Your task to perform on an android device: change the upload size in google photos Image 0: 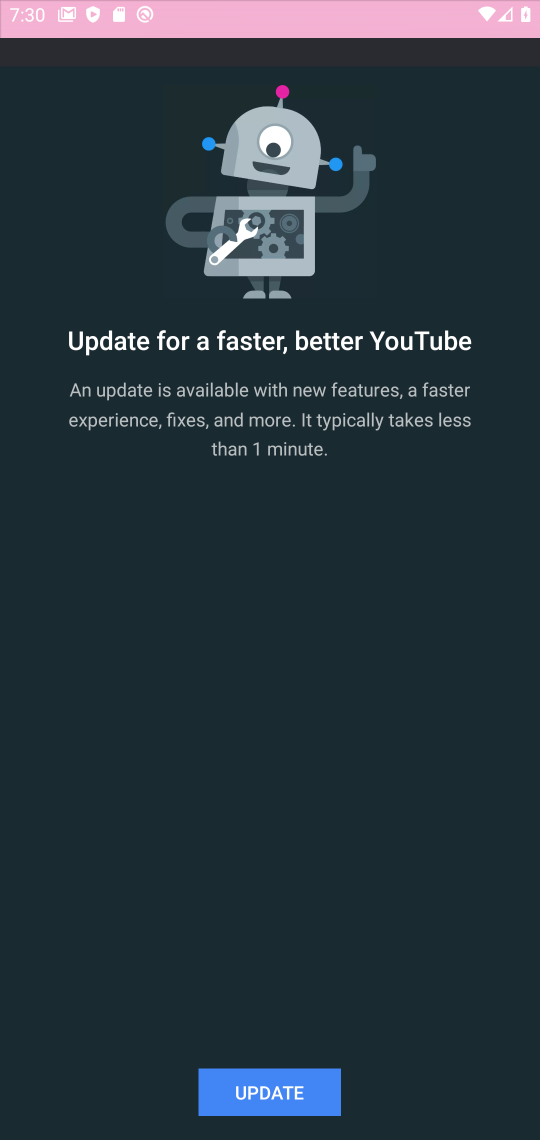
Step 0: press home button
Your task to perform on an android device: change the upload size in google photos Image 1: 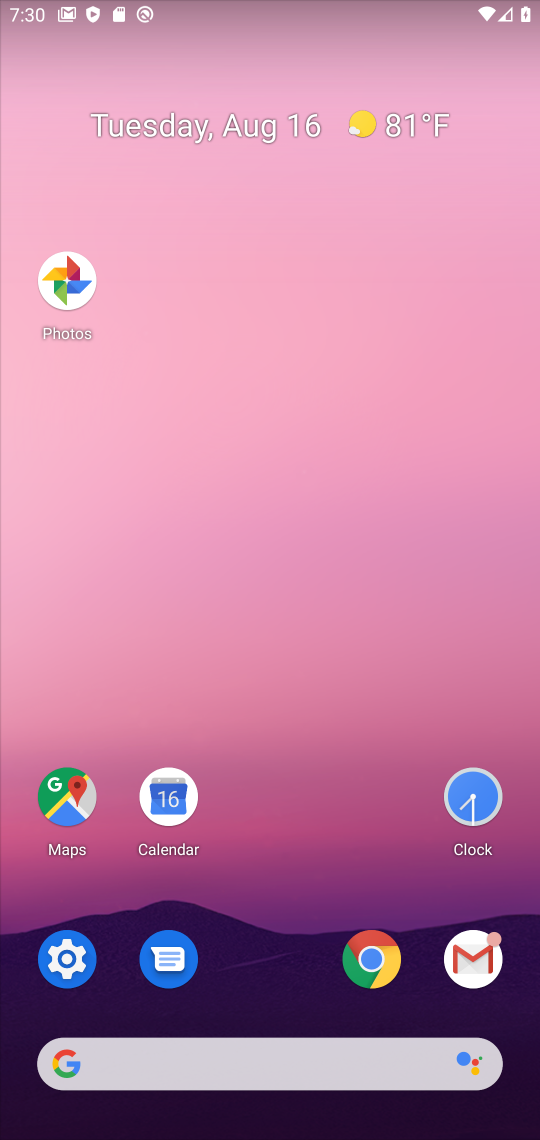
Step 1: click (70, 285)
Your task to perform on an android device: change the upload size in google photos Image 2: 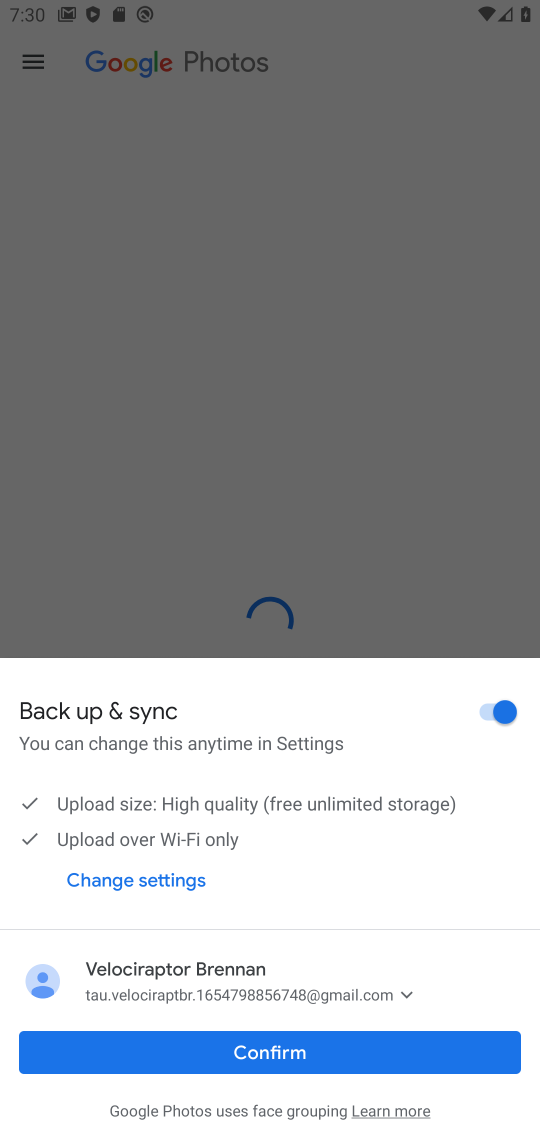
Step 2: click (270, 1049)
Your task to perform on an android device: change the upload size in google photos Image 3: 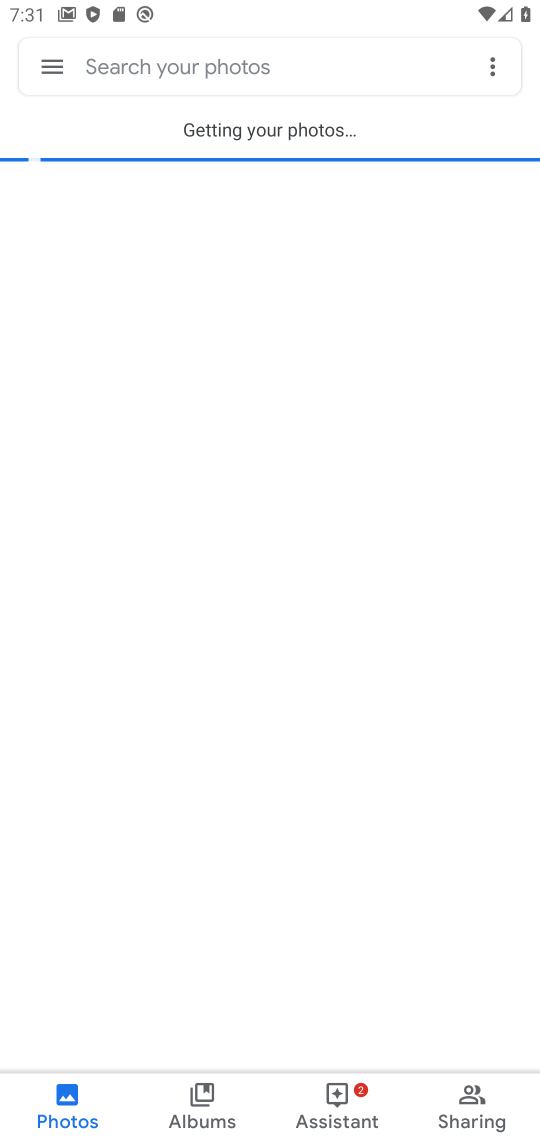
Step 3: click (53, 61)
Your task to perform on an android device: change the upload size in google photos Image 4: 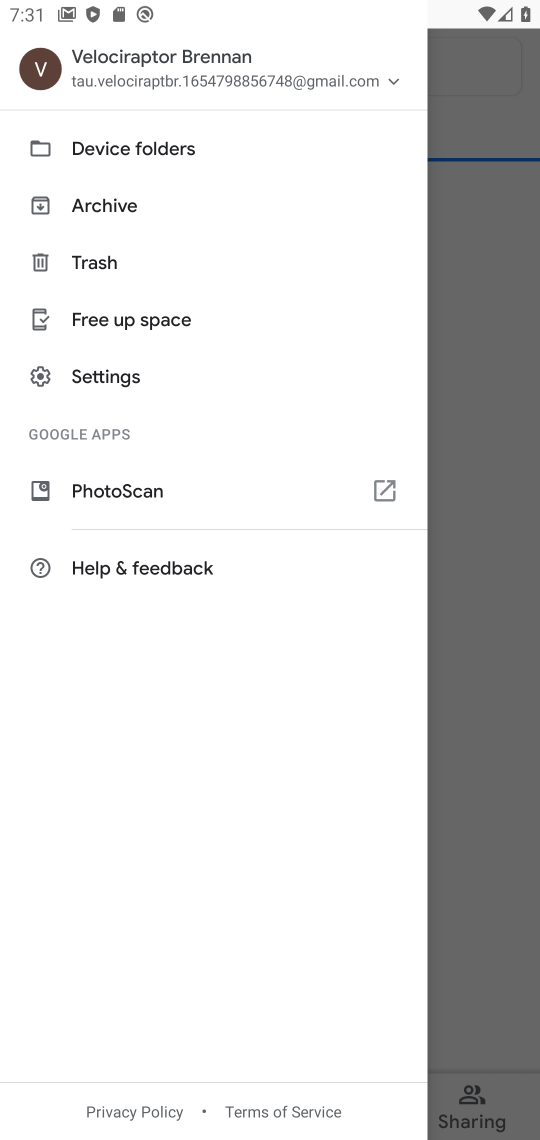
Step 4: click (114, 367)
Your task to perform on an android device: change the upload size in google photos Image 5: 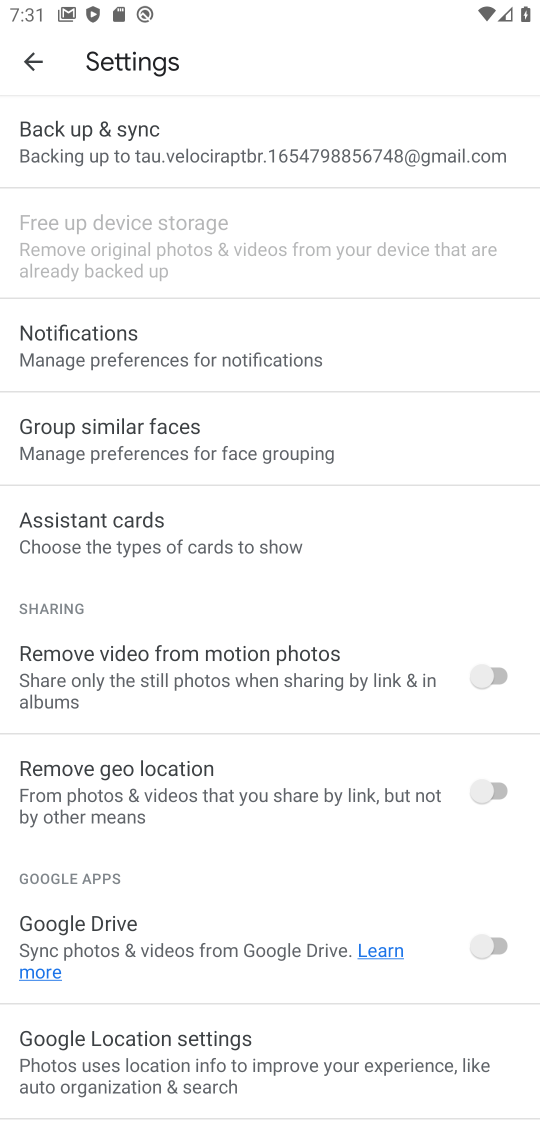
Step 5: click (136, 137)
Your task to perform on an android device: change the upload size in google photos Image 6: 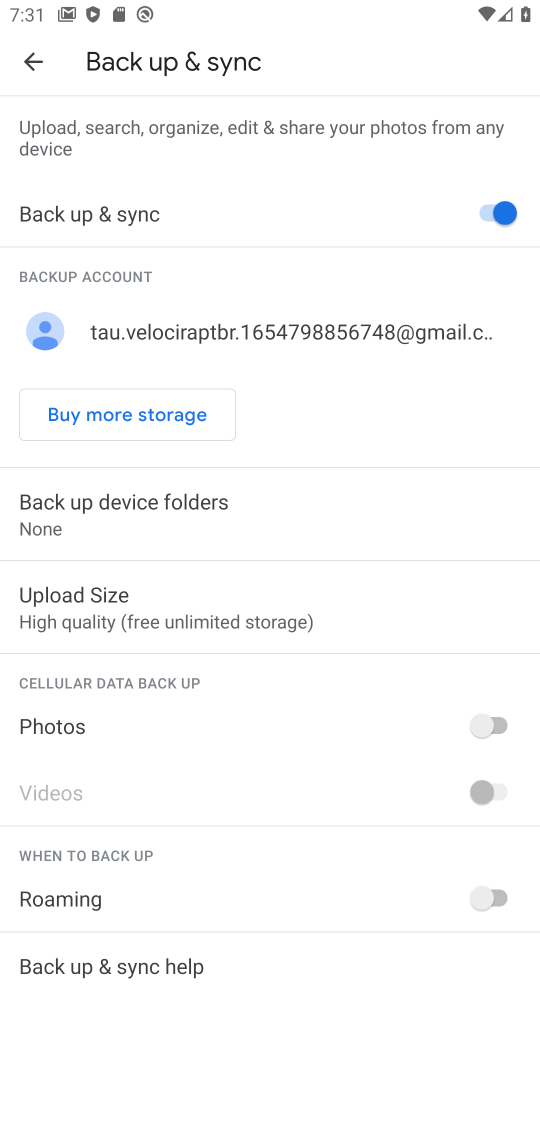
Step 6: click (116, 595)
Your task to perform on an android device: change the upload size in google photos Image 7: 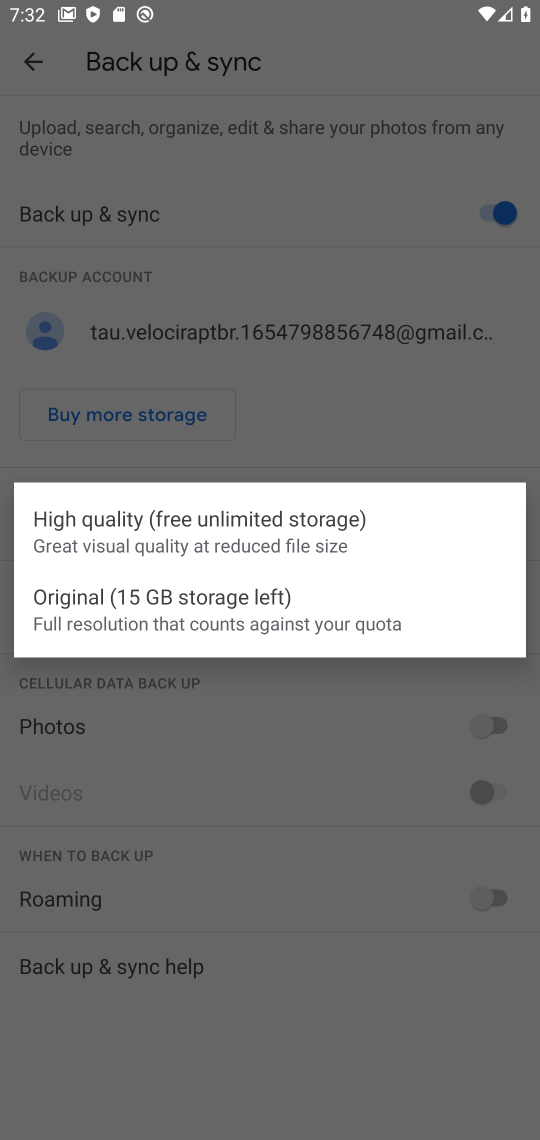
Step 7: task complete